Your task to perform on an android device: Show me recent news Image 0: 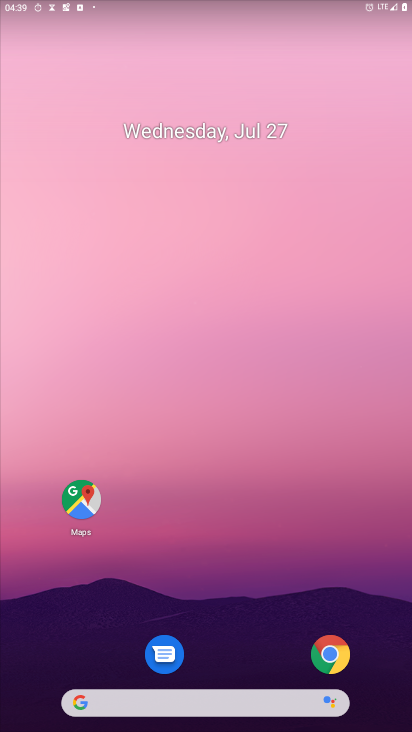
Step 0: drag from (163, 678) to (305, 15)
Your task to perform on an android device: Show me recent news Image 1: 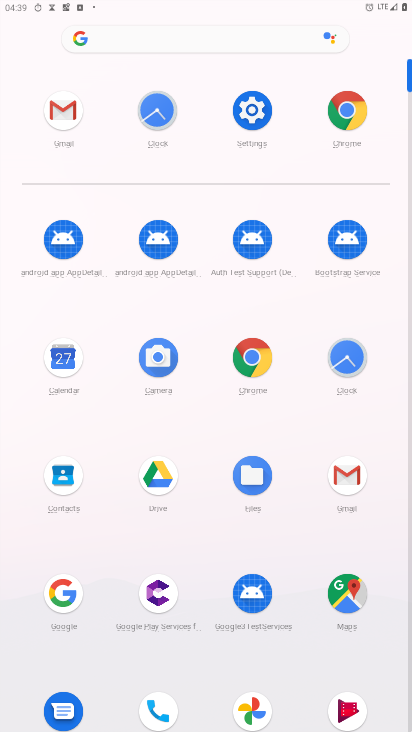
Step 1: click (59, 599)
Your task to perform on an android device: Show me recent news Image 2: 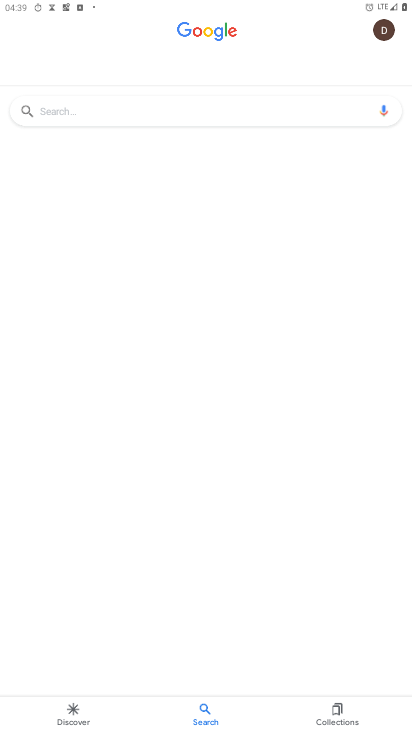
Step 2: click (158, 120)
Your task to perform on an android device: Show me recent news Image 3: 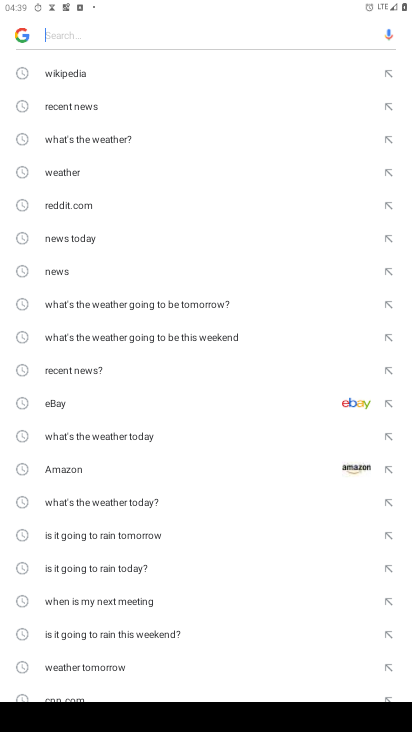
Step 3: click (111, 107)
Your task to perform on an android device: Show me recent news Image 4: 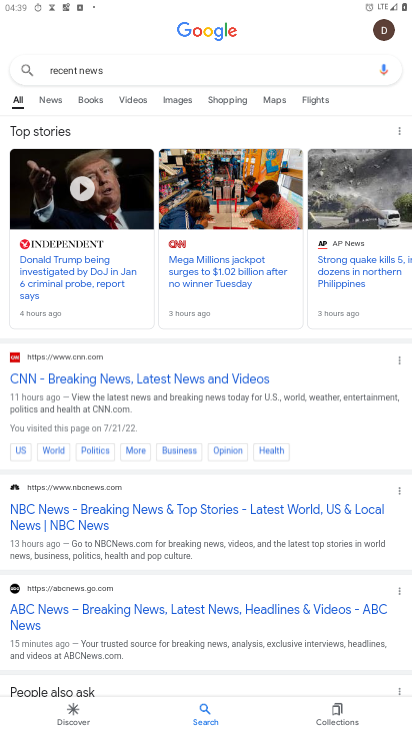
Step 4: task complete